Your task to perform on an android device: Look up the best gaming chair on Best Buy. Image 0: 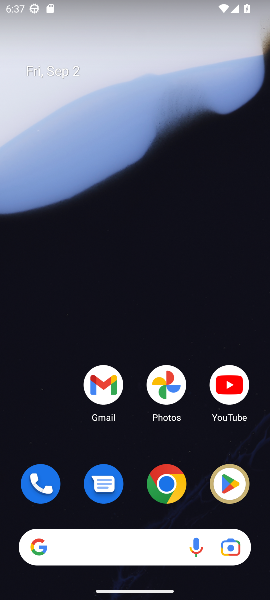
Step 0: click (166, 482)
Your task to perform on an android device: Look up the best gaming chair on Best Buy. Image 1: 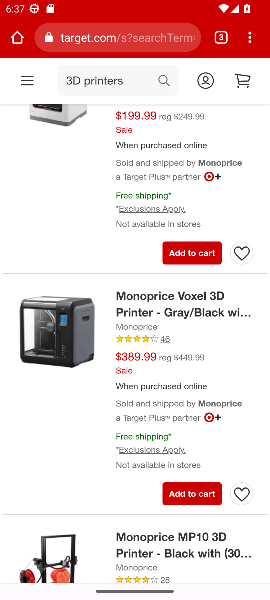
Step 1: click (145, 36)
Your task to perform on an android device: Look up the best gaming chair on Best Buy. Image 2: 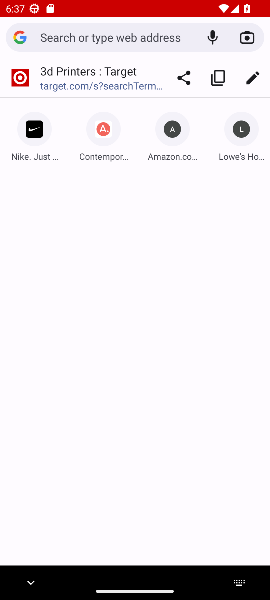
Step 2: type "Best Buy"
Your task to perform on an android device: Look up the best gaming chair on Best Buy. Image 3: 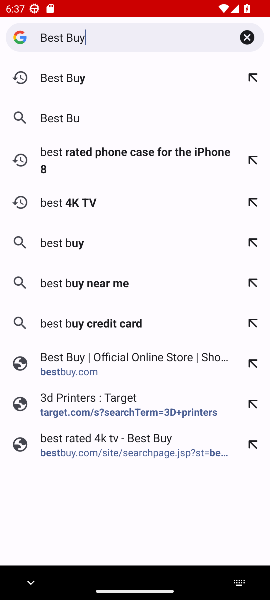
Step 3: press enter
Your task to perform on an android device: Look up the best gaming chair on Best Buy. Image 4: 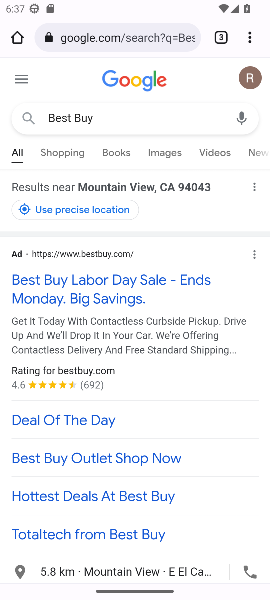
Step 4: drag from (111, 476) to (217, 219)
Your task to perform on an android device: Look up the best gaming chair on Best Buy. Image 5: 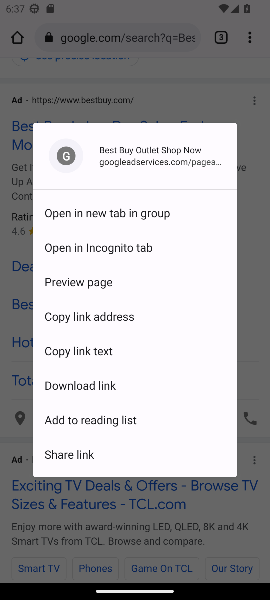
Step 5: click (254, 502)
Your task to perform on an android device: Look up the best gaming chair on Best Buy. Image 6: 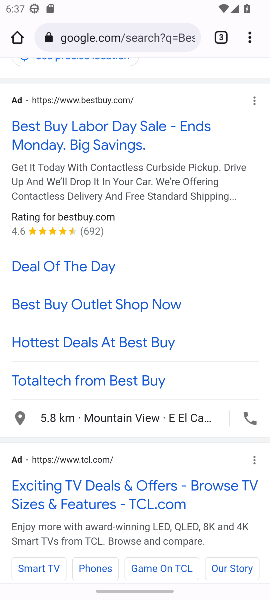
Step 6: drag from (128, 527) to (248, 186)
Your task to perform on an android device: Look up the best gaming chair on Best Buy. Image 7: 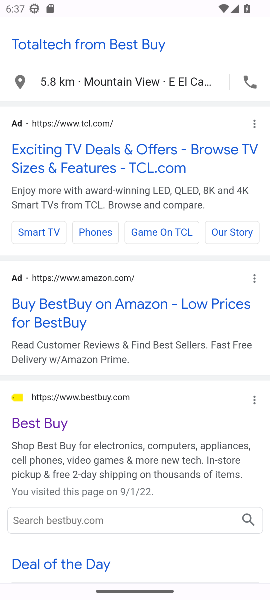
Step 7: drag from (115, 496) to (188, 312)
Your task to perform on an android device: Look up the best gaming chair on Best Buy. Image 8: 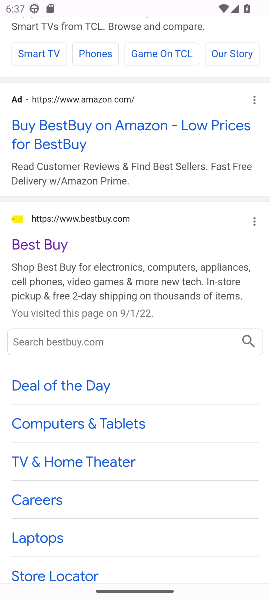
Step 8: click (60, 253)
Your task to perform on an android device: Look up the best gaming chair on Best Buy. Image 9: 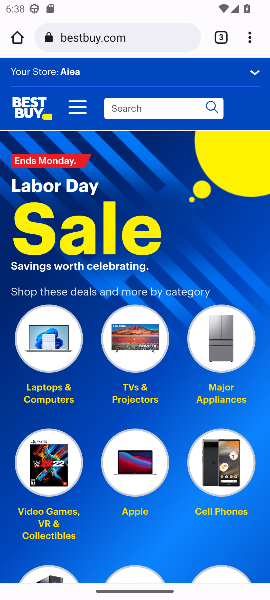
Step 9: click (147, 112)
Your task to perform on an android device: Look up the best gaming chair on Best Buy. Image 10: 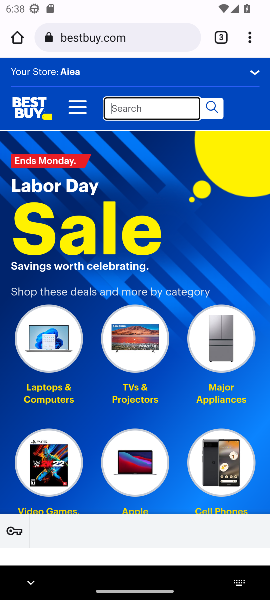
Step 10: click (158, 105)
Your task to perform on an android device: Look up the best gaming chair on Best Buy. Image 11: 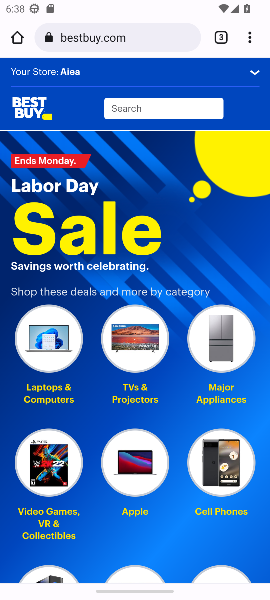
Step 11: click (166, 100)
Your task to perform on an android device: Look up the best gaming chair on Best Buy. Image 12: 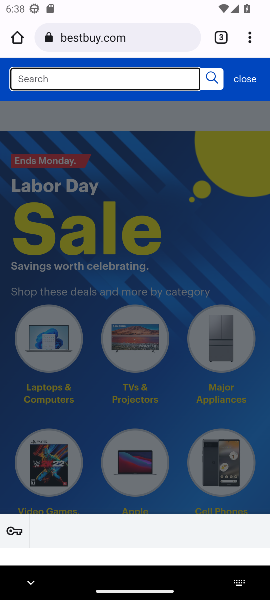
Step 12: type "gaming chair"
Your task to perform on an android device: Look up the best gaming chair on Best Buy. Image 13: 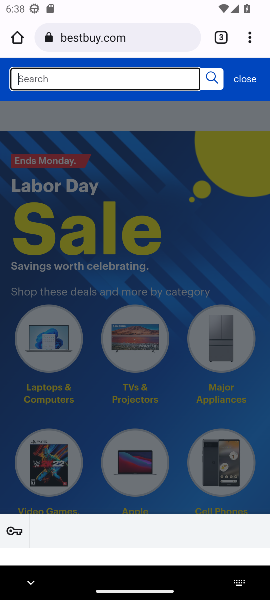
Step 13: press enter
Your task to perform on an android device: Look up the best gaming chair on Best Buy. Image 14: 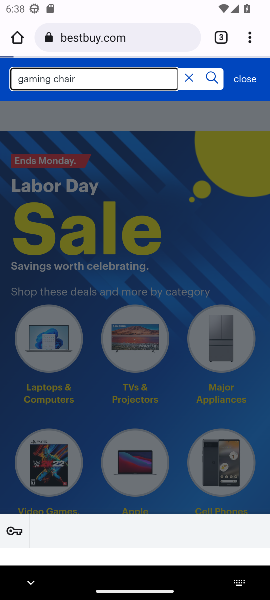
Step 14: click (212, 76)
Your task to perform on an android device: Look up the best gaming chair on Best Buy. Image 15: 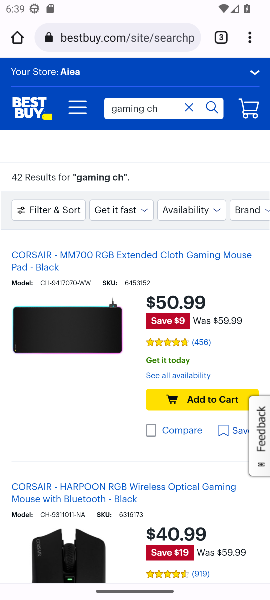
Step 15: drag from (99, 464) to (214, 214)
Your task to perform on an android device: Look up the best gaming chair on Best Buy. Image 16: 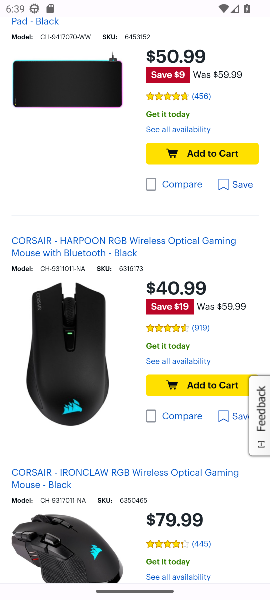
Step 16: drag from (199, 176) to (155, 461)
Your task to perform on an android device: Look up the best gaming chair on Best Buy. Image 17: 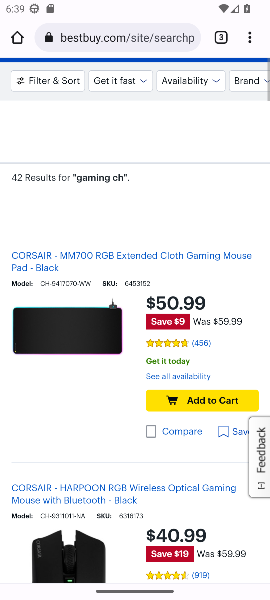
Step 17: drag from (162, 199) to (154, 415)
Your task to perform on an android device: Look up the best gaming chair on Best Buy. Image 18: 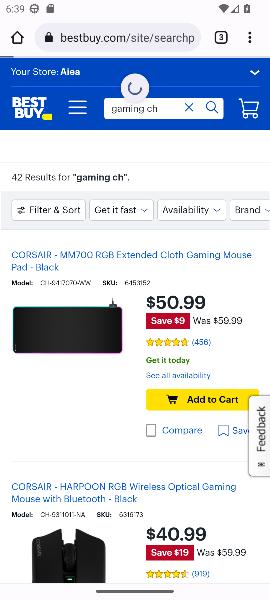
Step 18: click (162, 109)
Your task to perform on an android device: Look up the best gaming chair on Best Buy. Image 19: 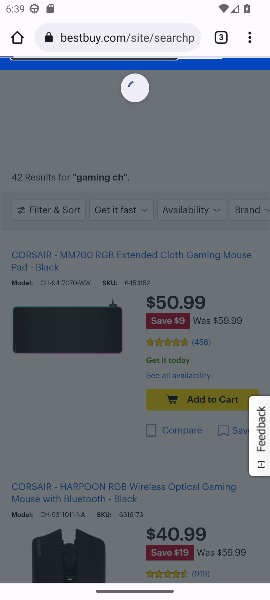
Step 19: click (189, 109)
Your task to perform on an android device: Look up the best gaming chair on Best Buy. Image 20: 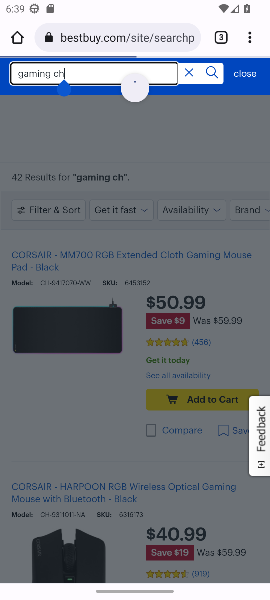
Step 20: click (191, 69)
Your task to perform on an android device: Look up the best gaming chair on Best Buy. Image 21: 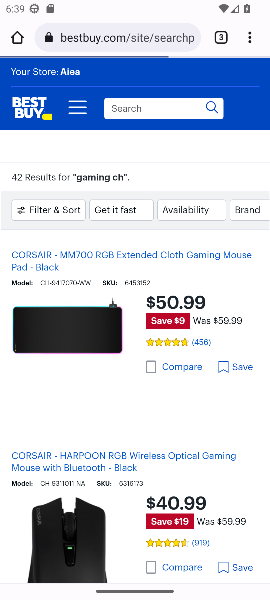
Step 21: click (169, 109)
Your task to perform on an android device: Look up the best gaming chair on Best Buy. Image 22: 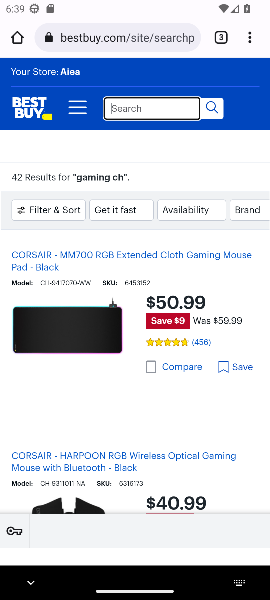
Step 22: click (156, 111)
Your task to perform on an android device: Look up the best gaming chair on Best Buy. Image 23: 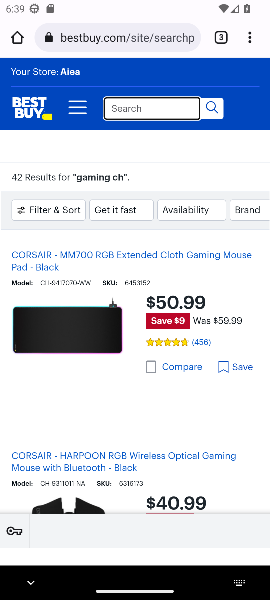
Step 23: click (156, 111)
Your task to perform on an android device: Look up the best gaming chair on Best Buy. Image 24: 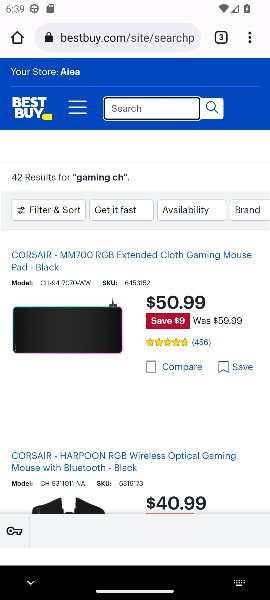
Step 24: click (125, 106)
Your task to perform on an android device: Look up the best gaming chair on Best Buy. Image 25: 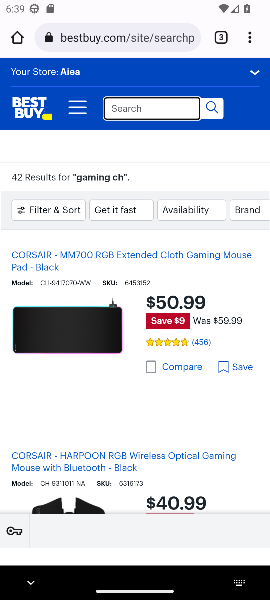
Step 25: click (124, 105)
Your task to perform on an android device: Look up the best gaming chair on Best Buy. Image 26: 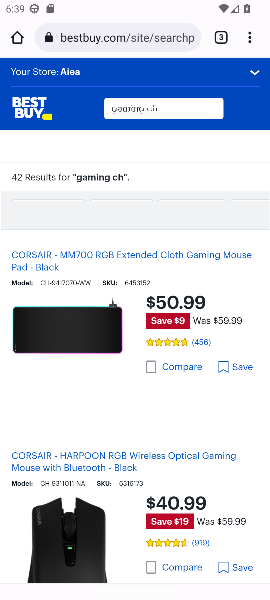
Step 26: click (161, 106)
Your task to perform on an android device: Look up the best gaming chair on Best Buy. Image 27: 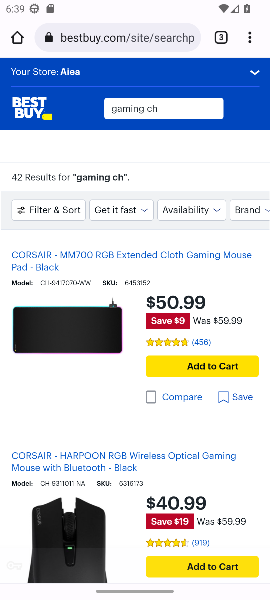
Step 27: click (162, 107)
Your task to perform on an android device: Look up the best gaming chair on Best Buy. Image 28: 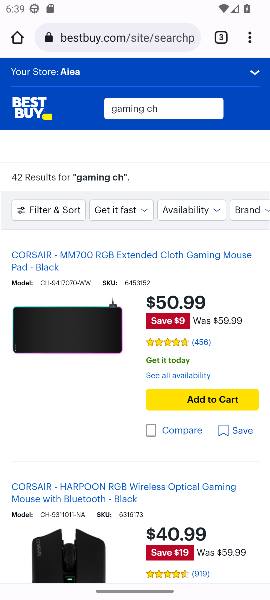
Step 28: click (182, 107)
Your task to perform on an android device: Look up the best gaming chair on Best Buy. Image 29: 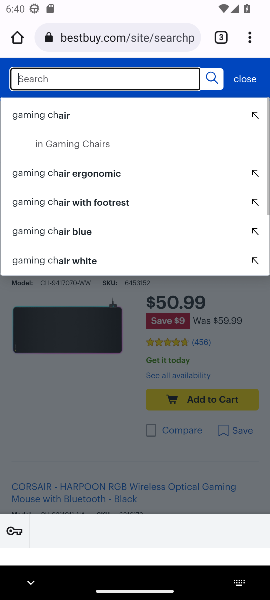
Step 29: type " gaming chair"
Your task to perform on an android device: Look up the best gaming chair on Best Buy. Image 30: 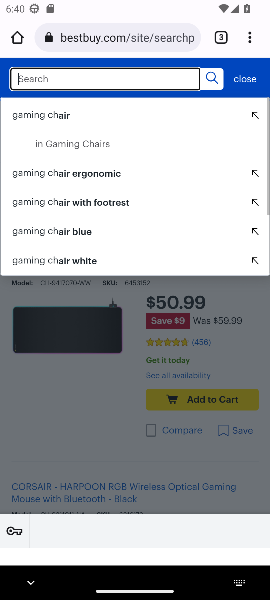
Step 30: press enter
Your task to perform on an android device: Look up the best gaming chair on Best Buy. Image 31: 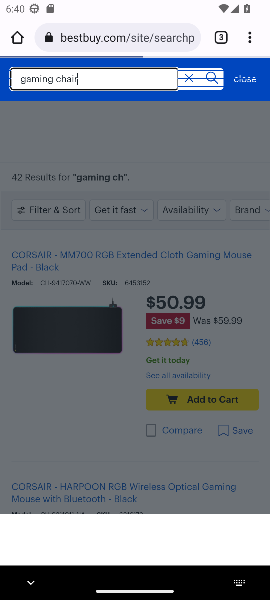
Step 31: click (213, 77)
Your task to perform on an android device: Look up the best gaming chair on Best Buy. Image 32: 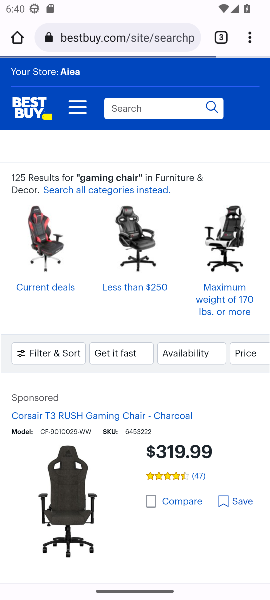
Step 32: task complete